Your task to perform on an android device: turn on priority inbox in the gmail app Image 0: 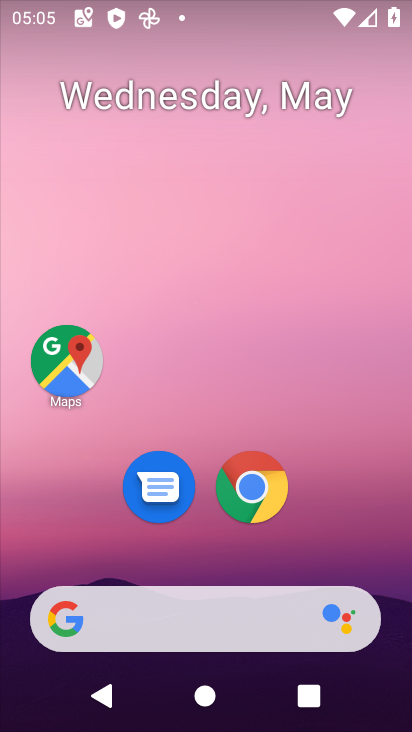
Step 0: drag from (364, 519) to (301, 117)
Your task to perform on an android device: turn on priority inbox in the gmail app Image 1: 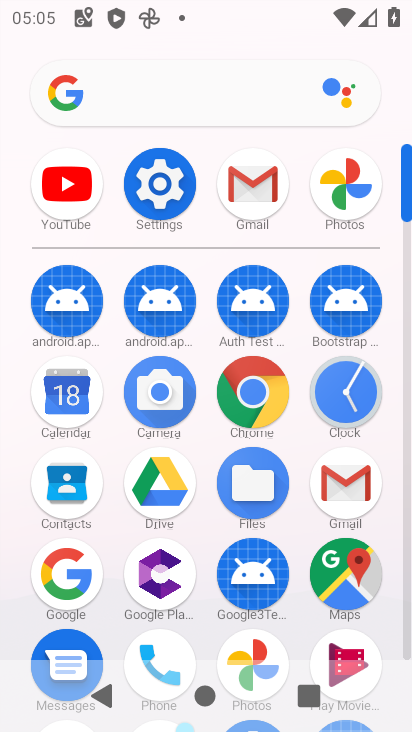
Step 1: click (271, 186)
Your task to perform on an android device: turn on priority inbox in the gmail app Image 2: 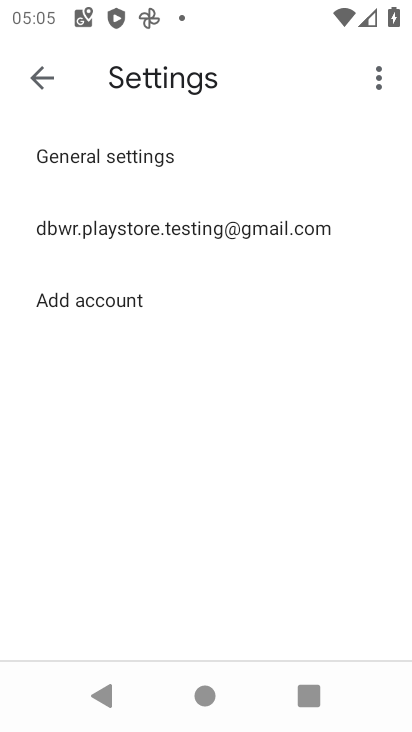
Step 2: click (162, 222)
Your task to perform on an android device: turn on priority inbox in the gmail app Image 3: 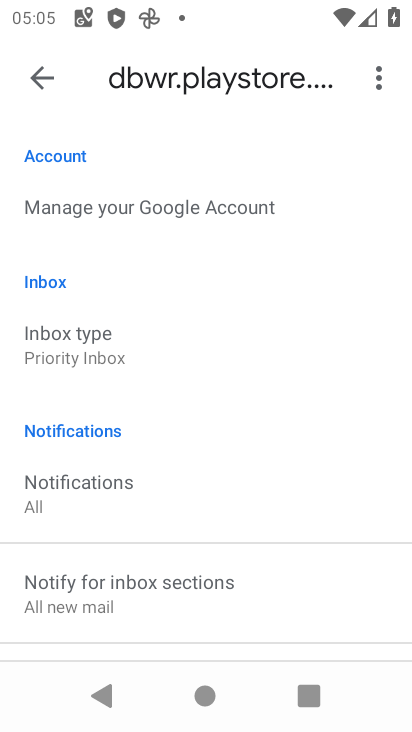
Step 3: task complete